Your task to perform on an android device: turn pop-ups off in chrome Image 0: 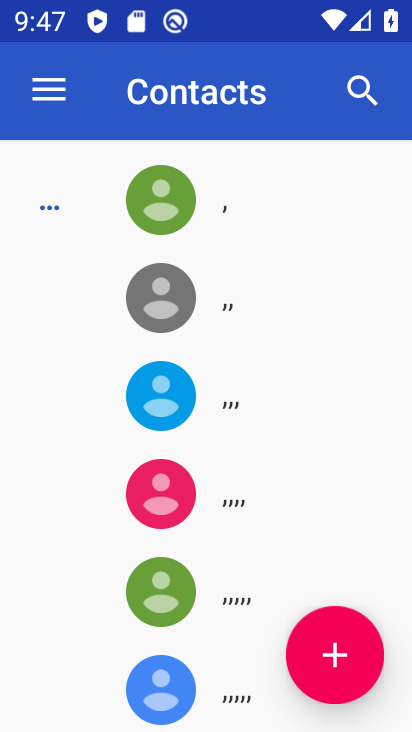
Step 0: press home button
Your task to perform on an android device: turn pop-ups off in chrome Image 1: 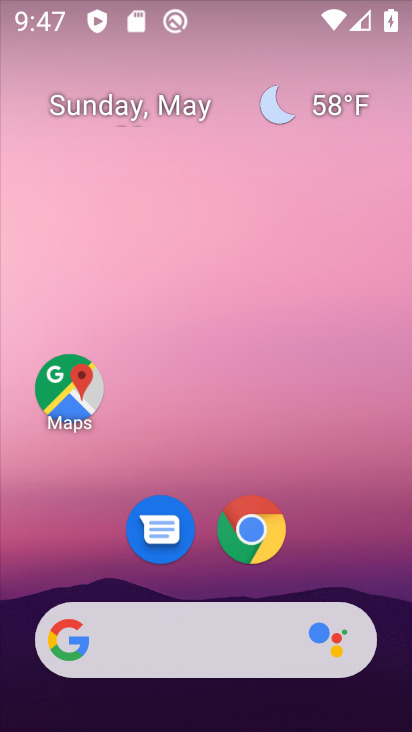
Step 1: drag from (197, 578) to (234, 44)
Your task to perform on an android device: turn pop-ups off in chrome Image 2: 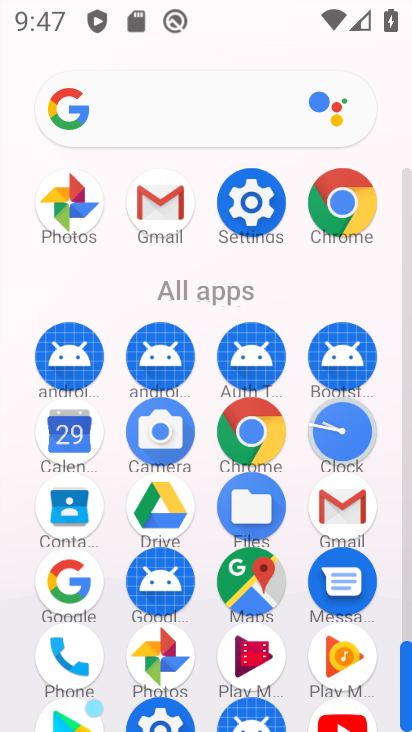
Step 2: click (358, 230)
Your task to perform on an android device: turn pop-ups off in chrome Image 3: 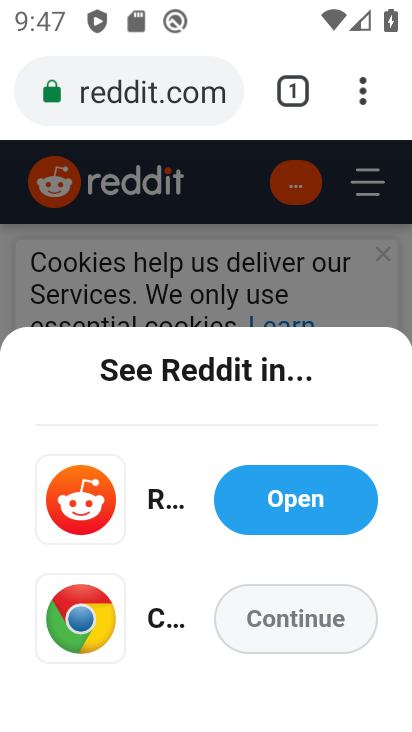
Step 3: click (358, 97)
Your task to perform on an android device: turn pop-ups off in chrome Image 4: 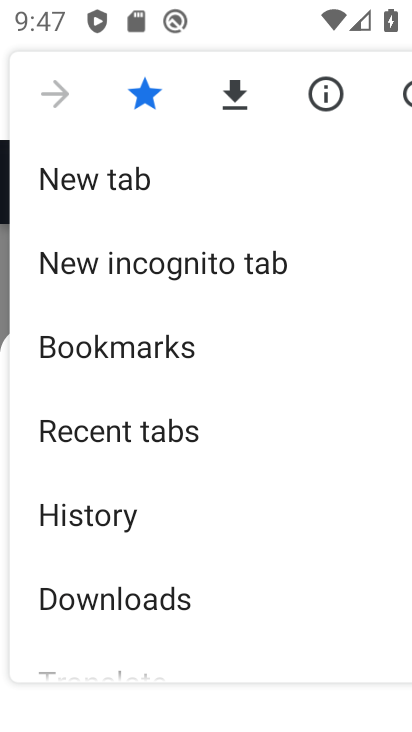
Step 4: drag from (154, 520) to (147, 207)
Your task to perform on an android device: turn pop-ups off in chrome Image 5: 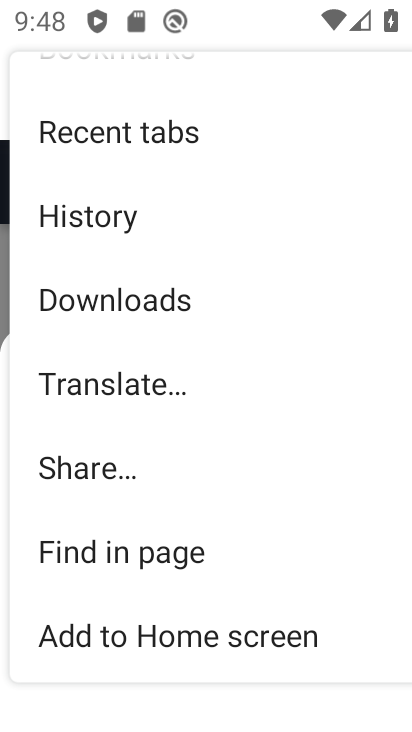
Step 5: drag from (105, 553) to (101, 175)
Your task to perform on an android device: turn pop-ups off in chrome Image 6: 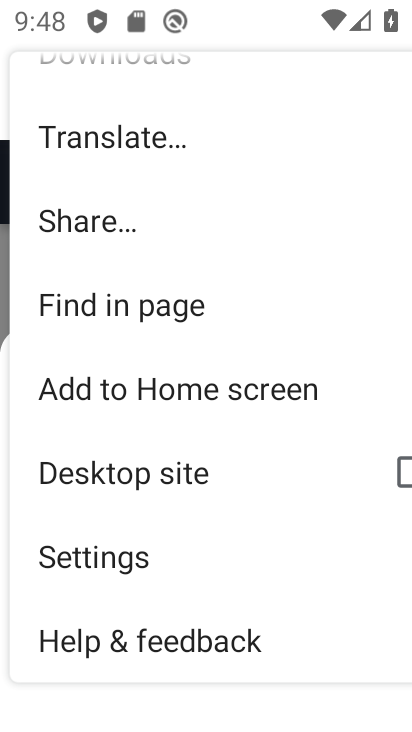
Step 6: click (86, 563)
Your task to perform on an android device: turn pop-ups off in chrome Image 7: 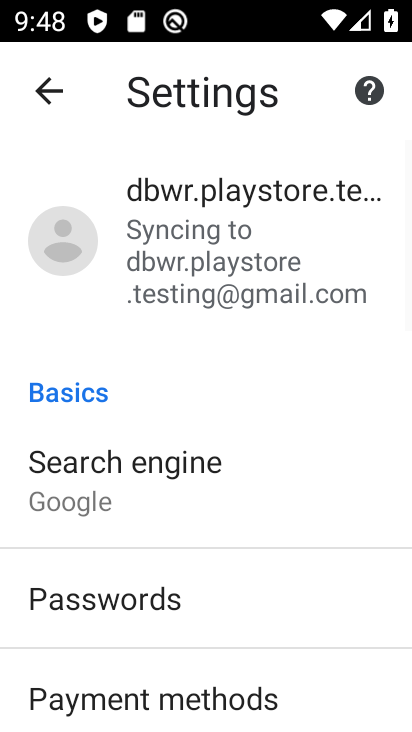
Step 7: drag from (107, 589) to (161, 177)
Your task to perform on an android device: turn pop-ups off in chrome Image 8: 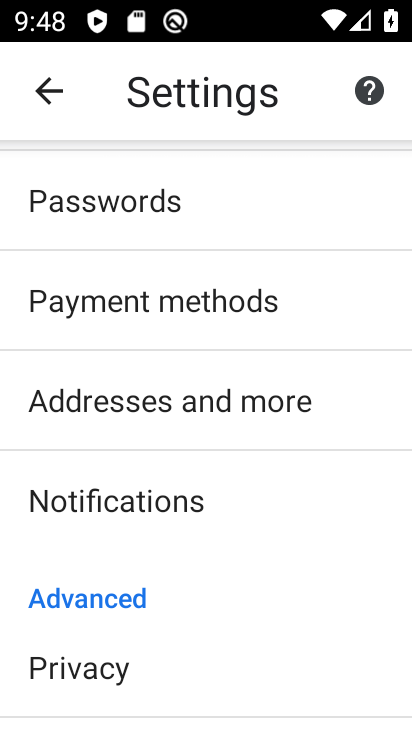
Step 8: drag from (158, 549) to (180, 327)
Your task to perform on an android device: turn pop-ups off in chrome Image 9: 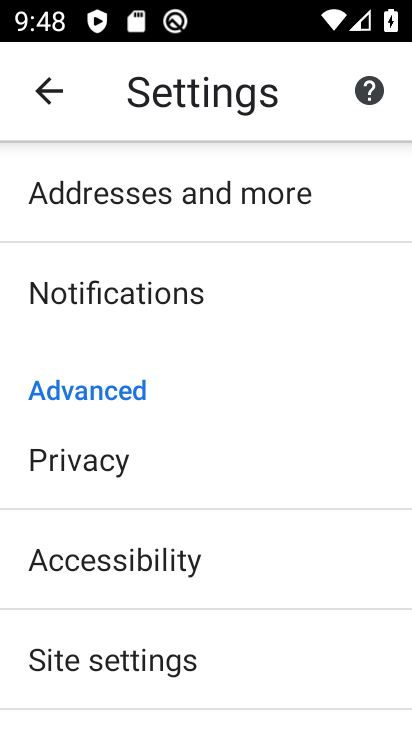
Step 9: click (130, 676)
Your task to perform on an android device: turn pop-ups off in chrome Image 10: 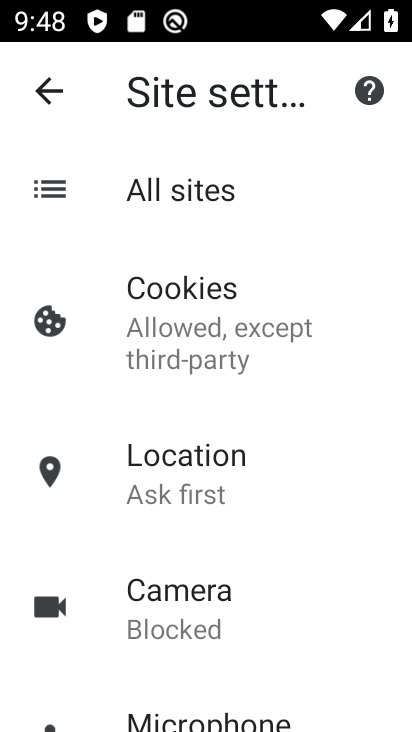
Step 10: drag from (172, 687) to (180, 406)
Your task to perform on an android device: turn pop-ups off in chrome Image 11: 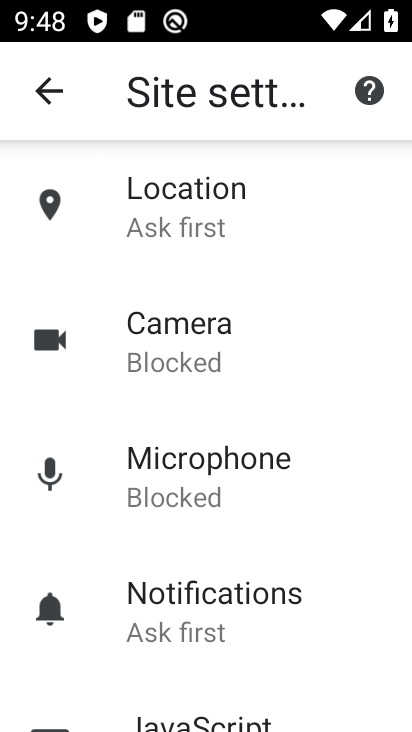
Step 11: drag from (195, 648) to (244, 224)
Your task to perform on an android device: turn pop-ups off in chrome Image 12: 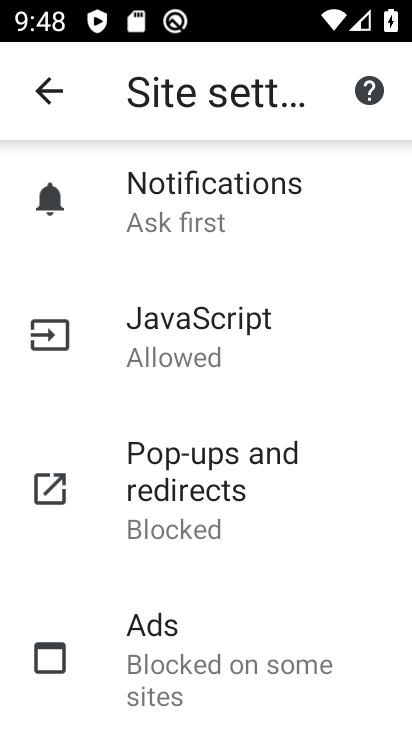
Step 12: click (191, 480)
Your task to perform on an android device: turn pop-ups off in chrome Image 13: 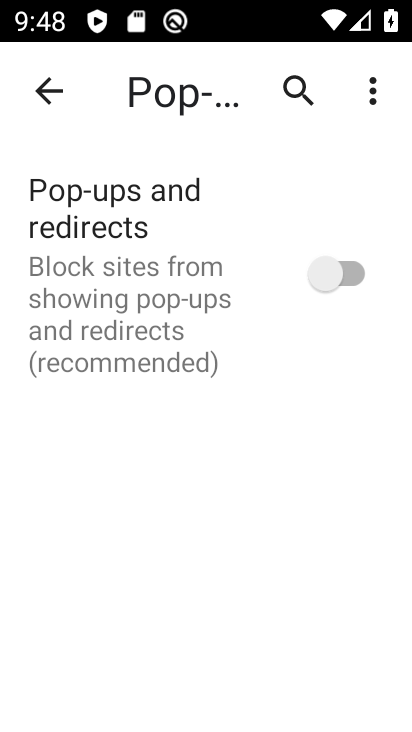
Step 13: task complete